Your task to perform on an android device: toggle translation in the chrome app Image 0: 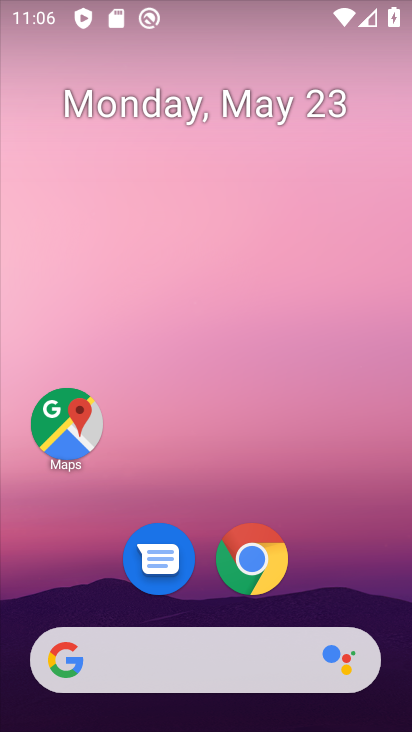
Step 0: click (252, 557)
Your task to perform on an android device: toggle translation in the chrome app Image 1: 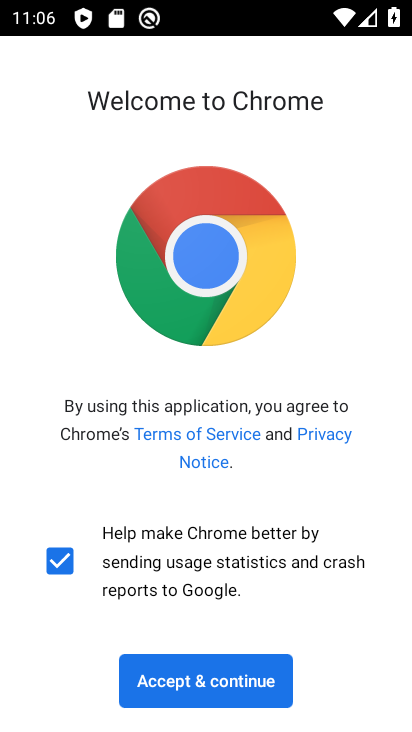
Step 1: click (223, 699)
Your task to perform on an android device: toggle translation in the chrome app Image 2: 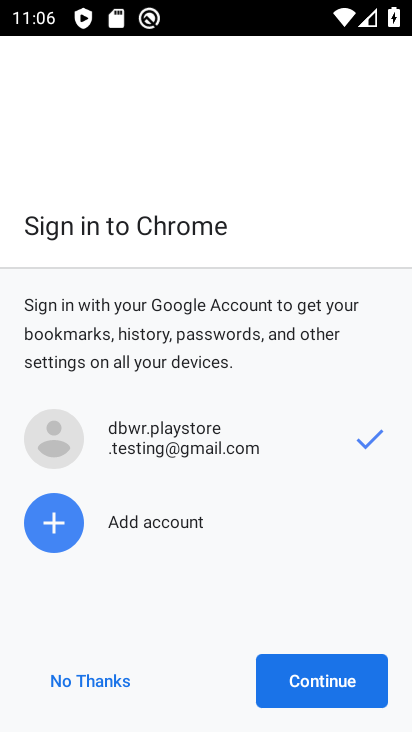
Step 2: click (339, 677)
Your task to perform on an android device: toggle translation in the chrome app Image 3: 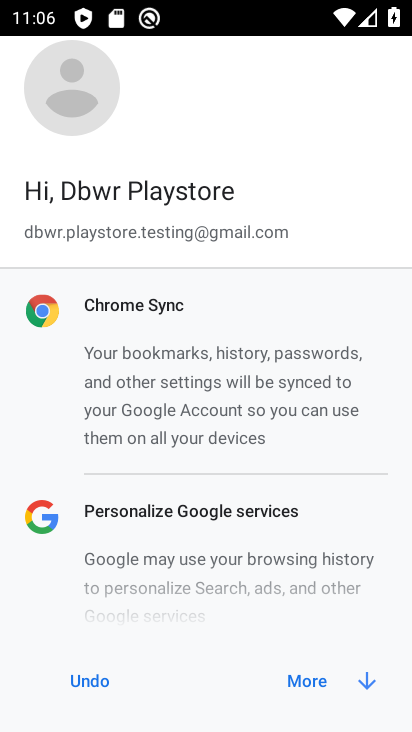
Step 3: click (322, 682)
Your task to perform on an android device: toggle translation in the chrome app Image 4: 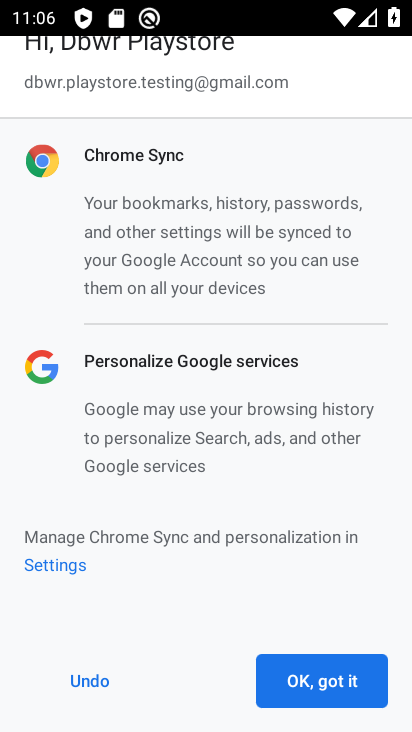
Step 4: click (322, 681)
Your task to perform on an android device: toggle translation in the chrome app Image 5: 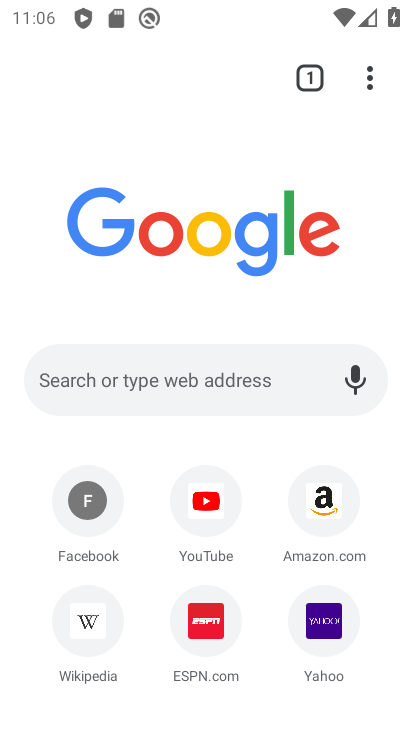
Step 5: click (364, 76)
Your task to perform on an android device: toggle translation in the chrome app Image 6: 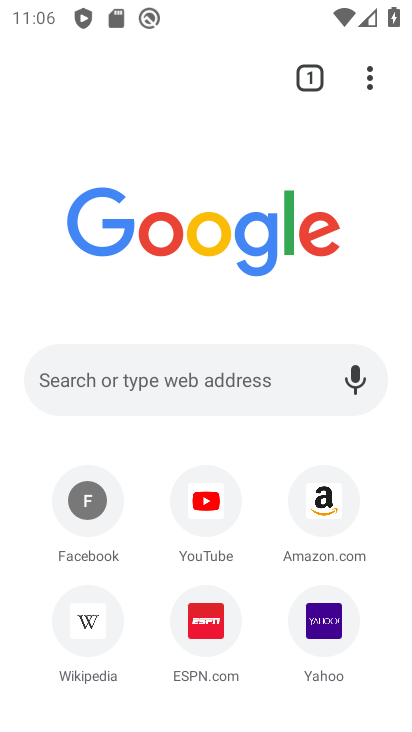
Step 6: click (371, 66)
Your task to perform on an android device: toggle translation in the chrome app Image 7: 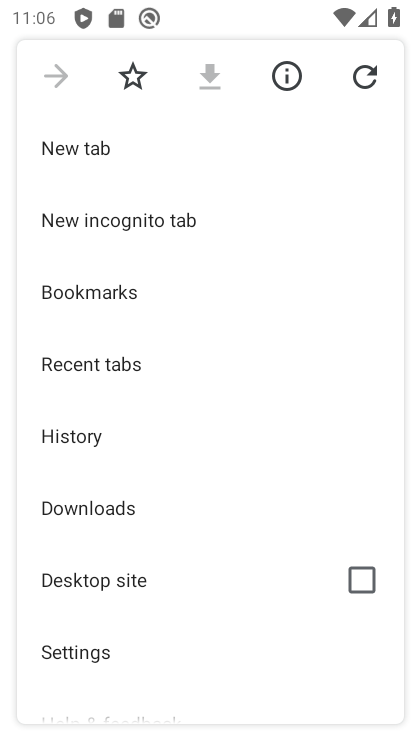
Step 7: click (96, 654)
Your task to perform on an android device: toggle translation in the chrome app Image 8: 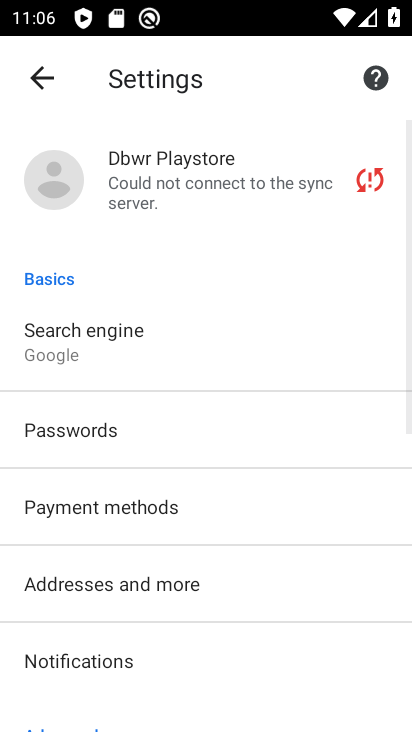
Step 8: drag from (246, 675) to (244, 354)
Your task to perform on an android device: toggle translation in the chrome app Image 9: 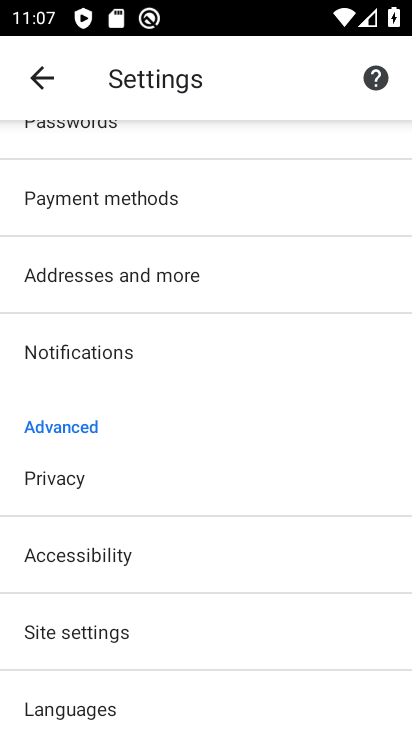
Step 9: click (96, 634)
Your task to perform on an android device: toggle translation in the chrome app Image 10: 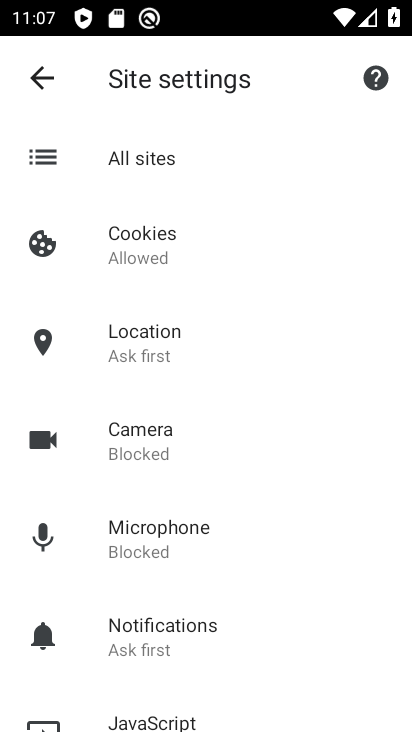
Step 10: drag from (289, 695) to (298, 439)
Your task to perform on an android device: toggle translation in the chrome app Image 11: 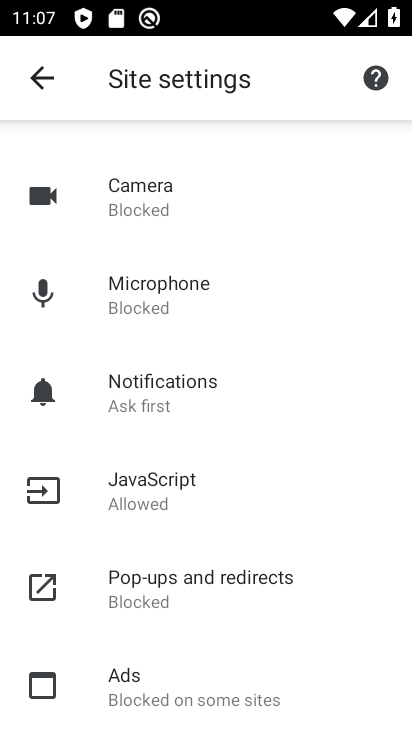
Step 11: click (40, 75)
Your task to perform on an android device: toggle translation in the chrome app Image 12: 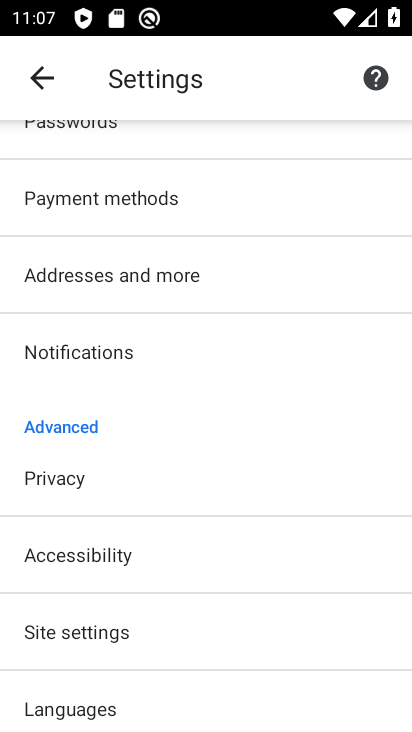
Step 12: click (74, 709)
Your task to perform on an android device: toggle translation in the chrome app Image 13: 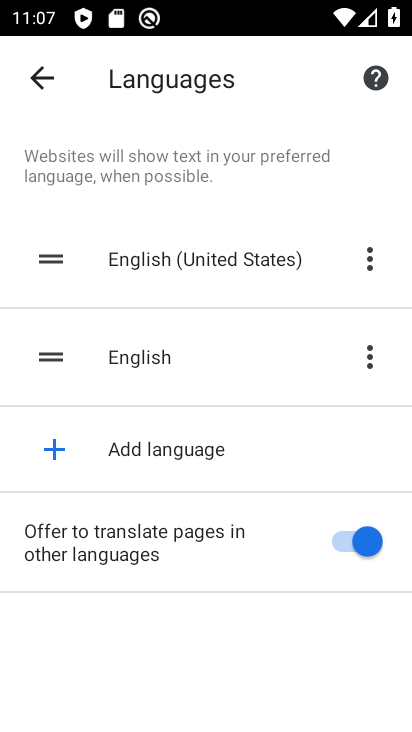
Step 13: click (333, 539)
Your task to perform on an android device: toggle translation in the chrome app Image 14: 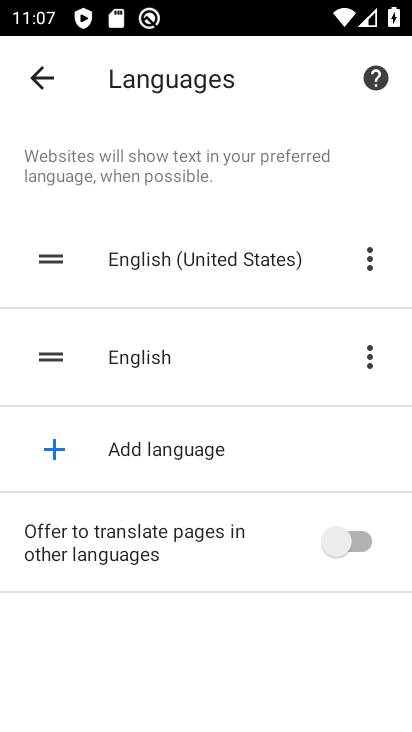
Step 14: task complete